Your task to perform on an android device: Open Yahoo.com Image 0: 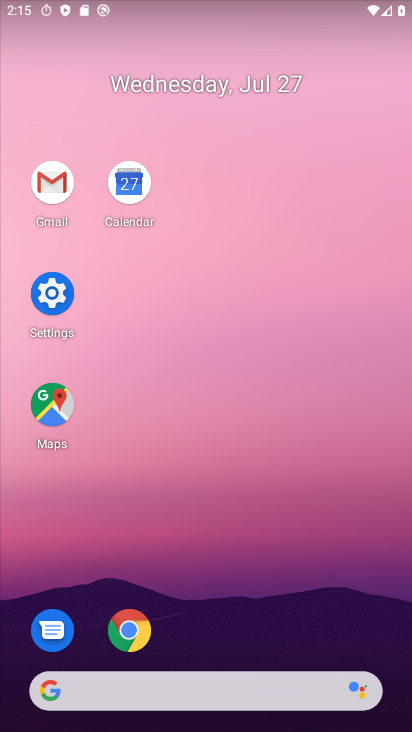
Step 0: click (122, 629)
Your task to perform on an android device: Open Yahoo.com Image 1: 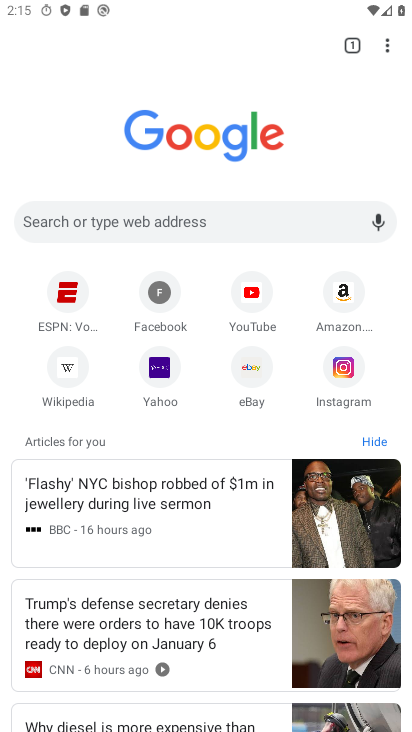
Step 1: click (158, 368)
Your task to perform on an android device: Open Yahoo.com Image 2: 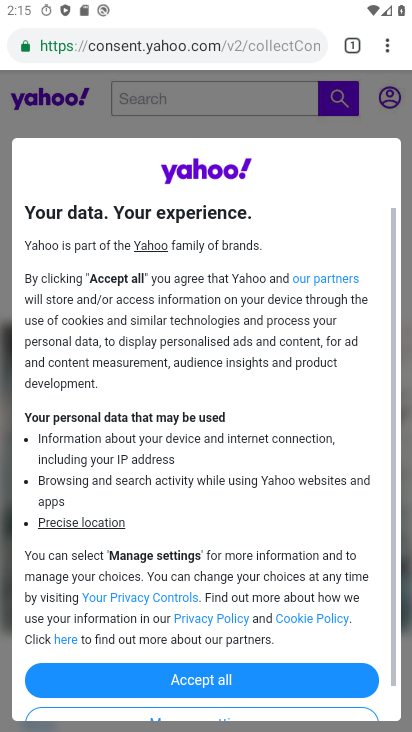
Step 2: task complete